Your task to perform on an android device: delete the emails in spam in the gmail app Image 0: 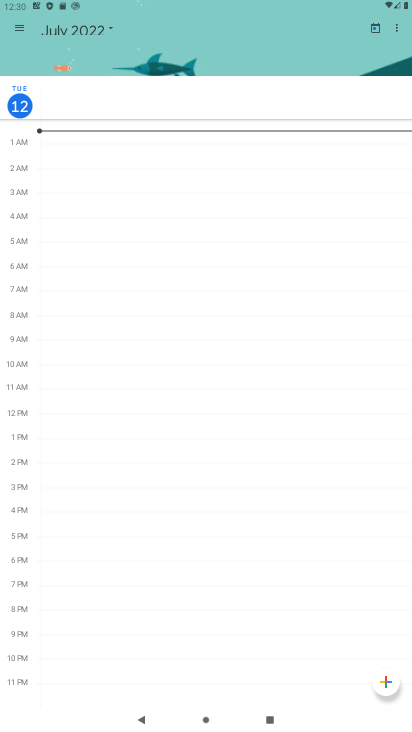
Step 0: press home button
Your task to perform on an android device: delete the emails in spam in the gmail app Image 1: 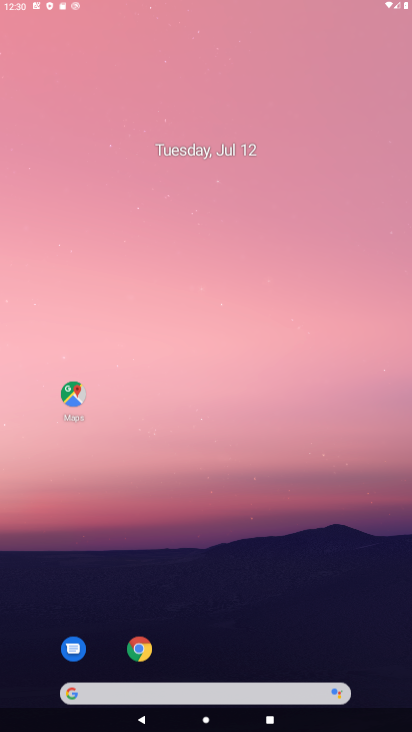
Step 1: drag from (381, 685) to (150, 100)
Your task to perform on an android device: delete the emails in spam in the gmail app Image 2: 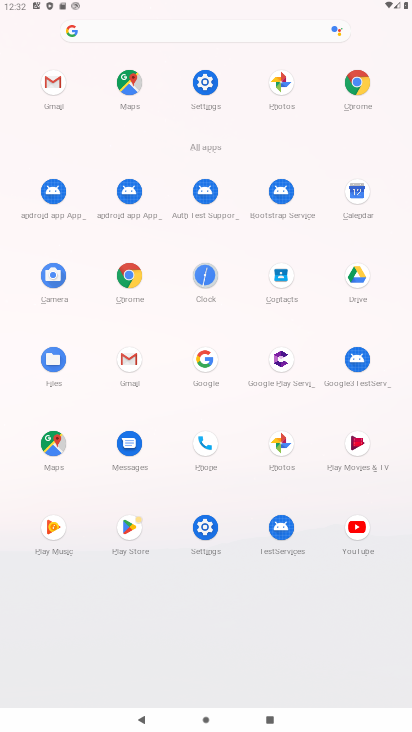
Step 2: click (114, 369)
Your task to perform on an android device: delete the emails in spam in the gmail app Image 3: 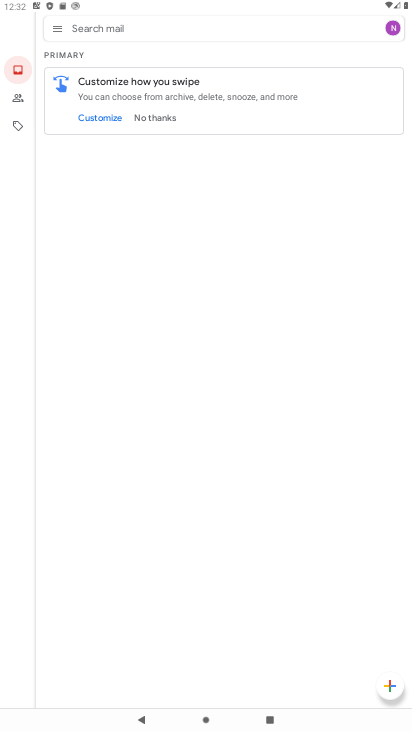
Step 3: task complete